Your task to perform on an android device: change notification settings in the gmail app Image 0: 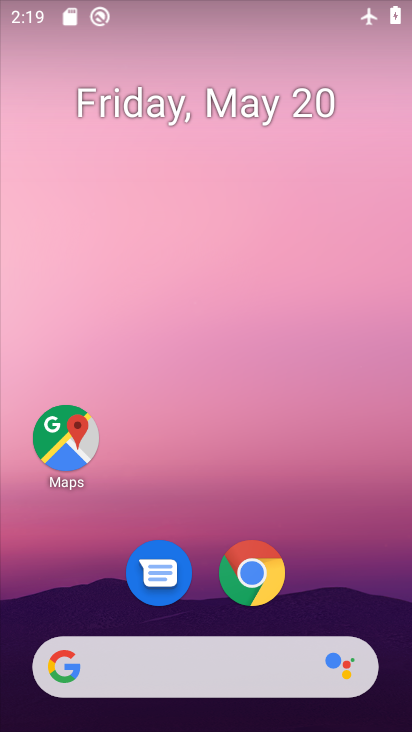
Step 0: drag from (199, 620) to (206, 152)
Your task to perform on an android device: change notification settings in the gmail app Image 1: 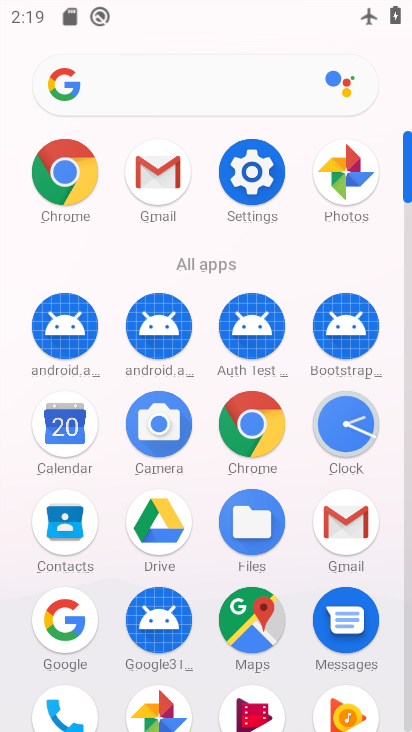
Step 1: click (170, 192)
Your task to perform on an android device: change notification settings in the gmail app Image 2: 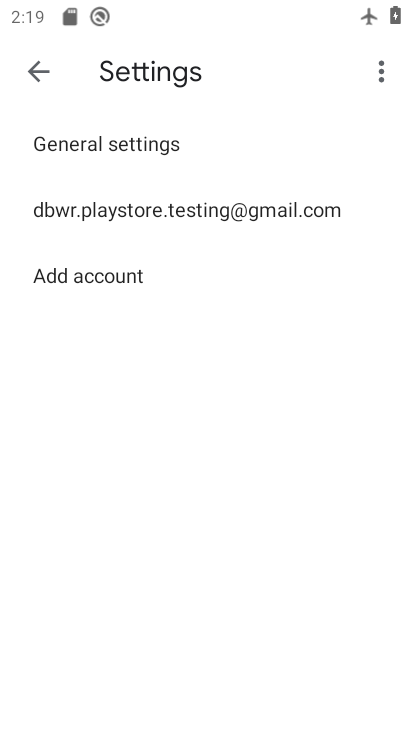
Step 2: click (187, 222)
Your task to perform on an android device: change notification settings in the gmail app Image 3: 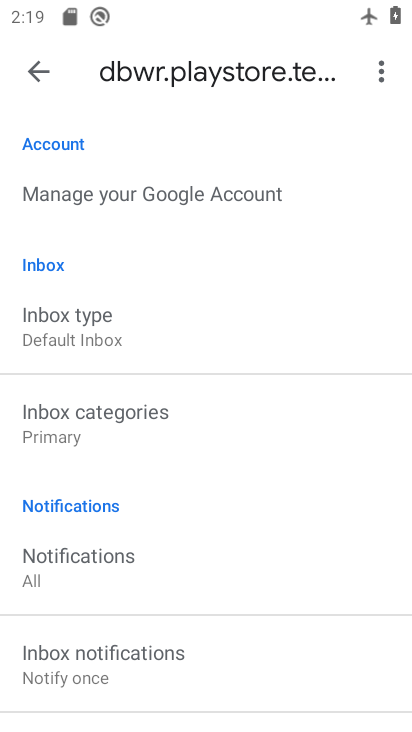
Step 3: drag from (173, 679) to (189, 485)
Your task to perform on an android device: change notification settings in the gmail app Image 4: 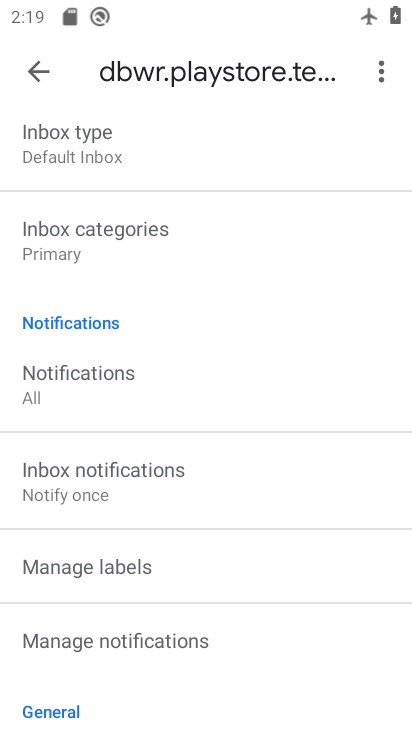
Step 4: click (165, 644)
Your task to perform on an android device: change notification settings in the gmail app Image 5: 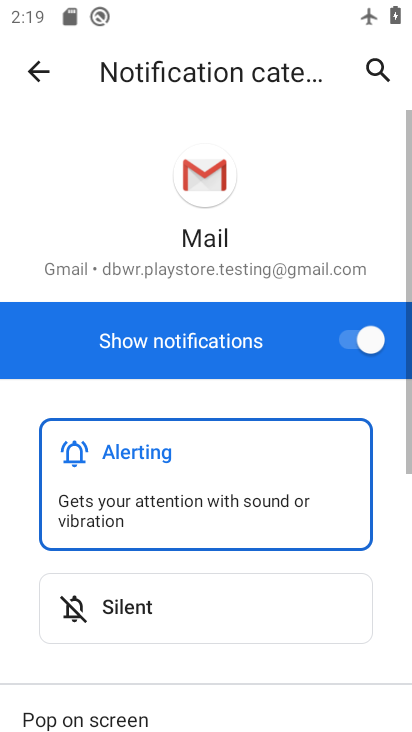
Step 5: drag from (219, 623) to (228, 338)
Your task to perform on an android device: change notification settings in the gmail app Image 6: 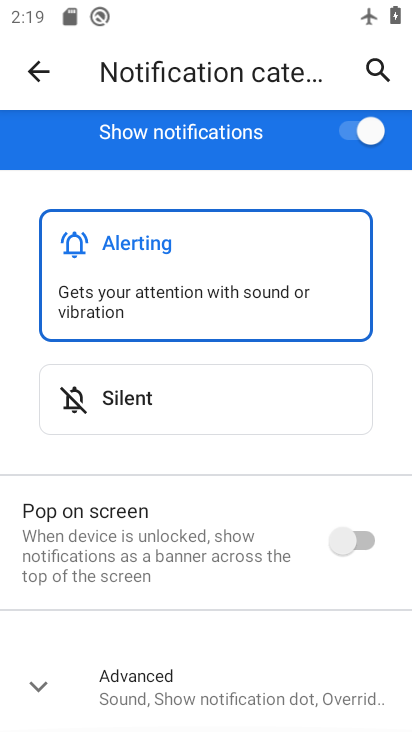
Step 6: drag from (228, 578) to (251, 320)
Your task to perform on an android device: change notification settings in the gmail app Image 7: 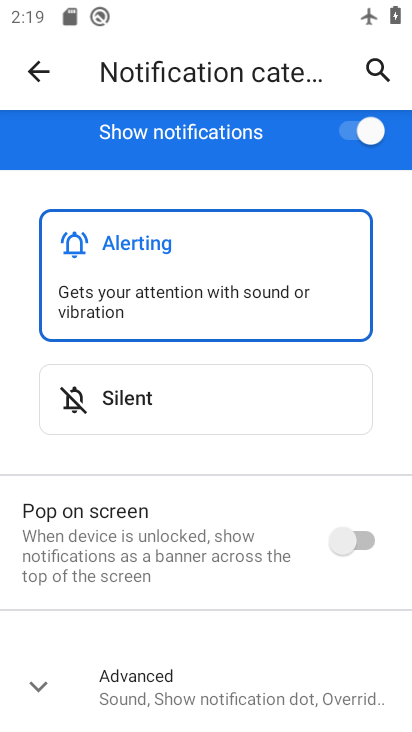
Step 7: drag from (191, 652) to (191, 445)
Your task to perform on an android device: change notification settings in the gmail app Image 8: 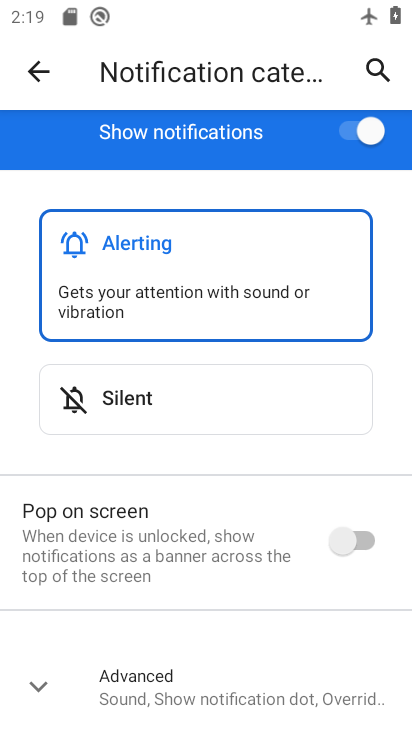
Step 8: drag from (166, 542) to (214, 227)
Your task to perform on an android device: change notification settings in the gmail app Image 9: 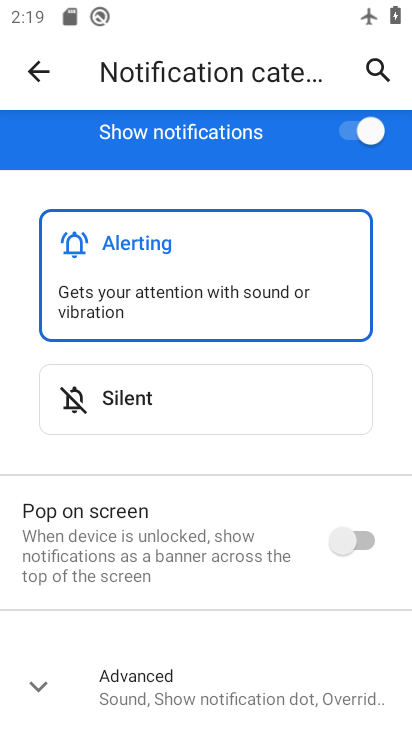
Step 9: click (343, 129)
Your task to perform on an android device: change notification settings in the gmail app Image 10: 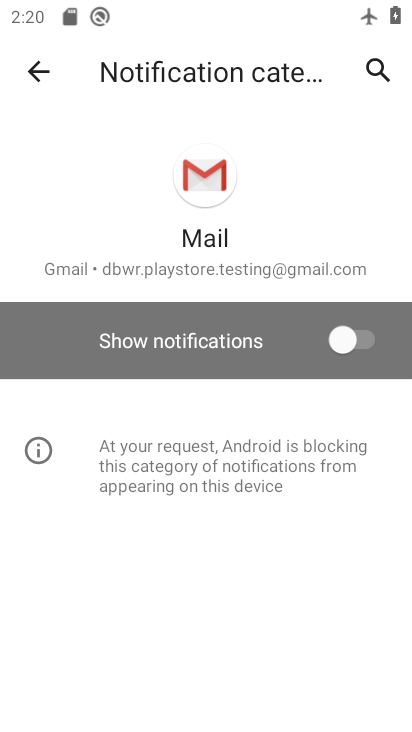
Step 10: task complete